Your task to perform on an android device: create a new album in the google photos Image 0: 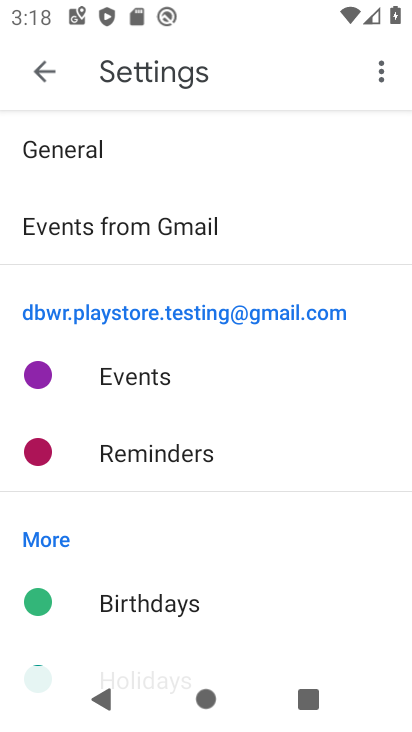
Step 0: press home button
Your task to perform on an android device: create a new album in the google photos Image 1: 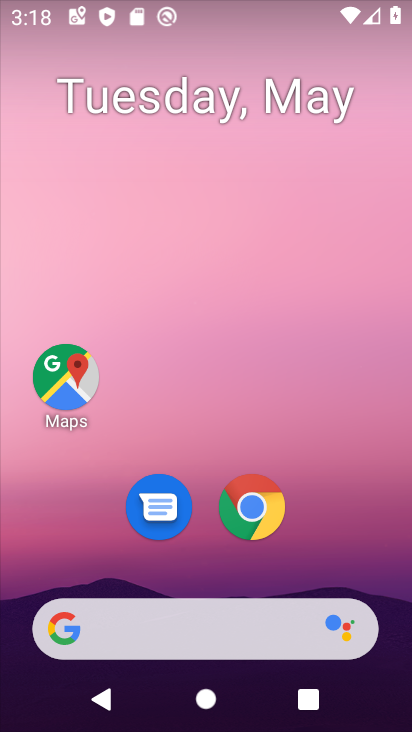
Step 1: drag from (210, 567) to (266, 58)
Your task to perform on an android device: create a new album in the google photos Image 2: 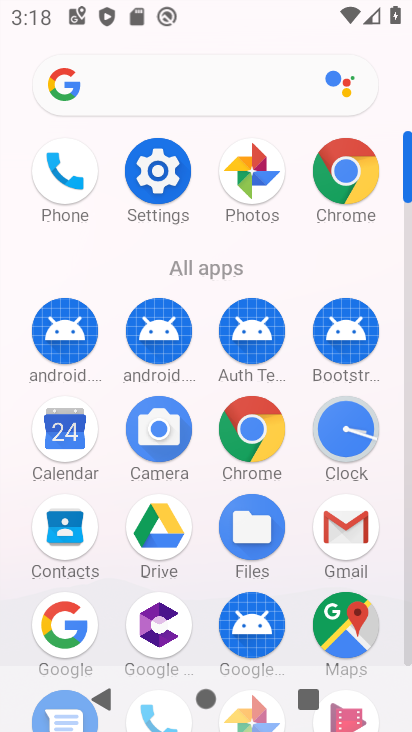
Step 2: click (257, 167)
Your task to perform on an android device: create a new album in the google photos Image 3: 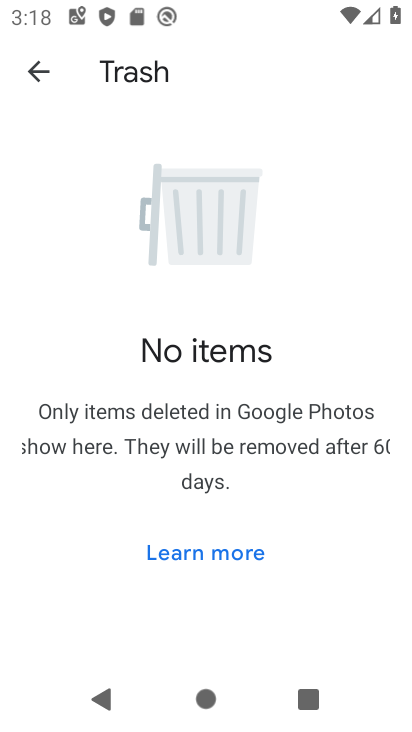
Step 3: click (44, 81)
Your task to perform on an android device: create a new album in the google photos Image 4: 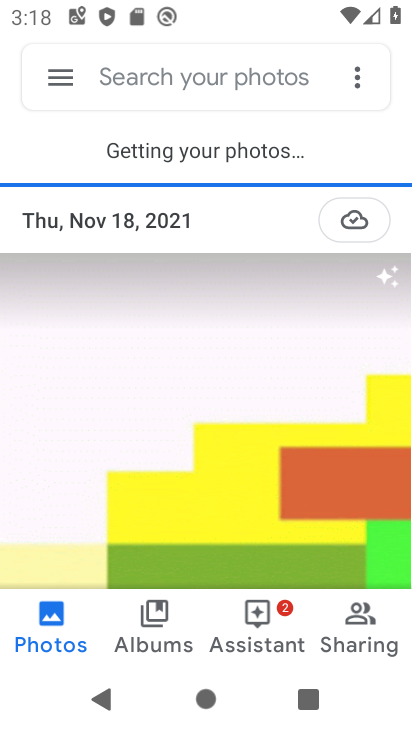
Step 4: click (156, 629)
Your task to perform on an android device: create a new album in the google photos Image 5: 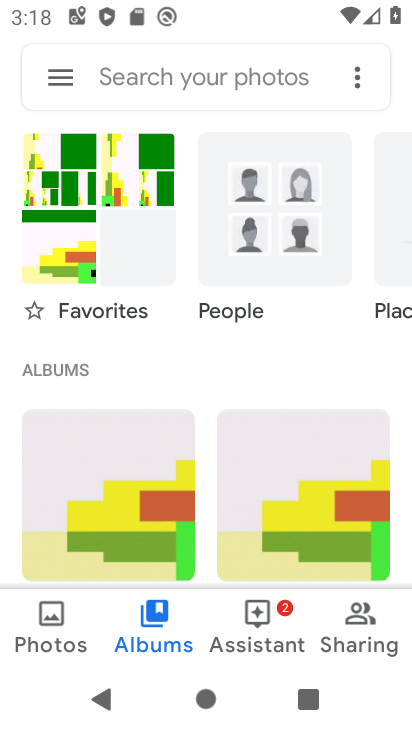
Step 5: click (346, 89)
Your task to perform on an android device: create a new album in the google photos Image 6: 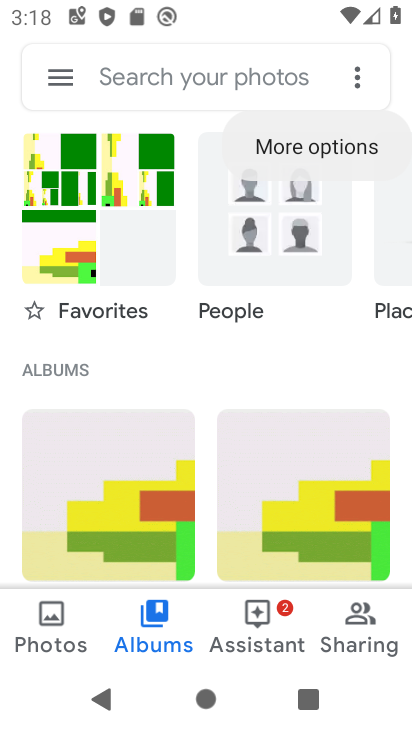
Step 6: click (359, 77)
Your task to perform on an android device: create a new album in the google photos Image 7: 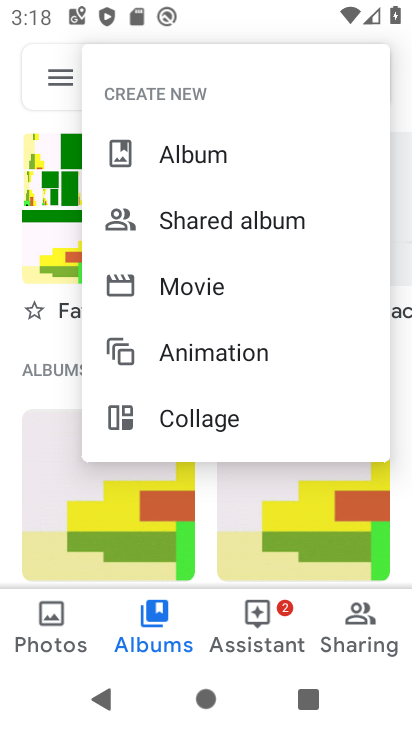
Step 7: click (211, 157)
Your task to perform on an android device: create a new album in the google photos Image 8: 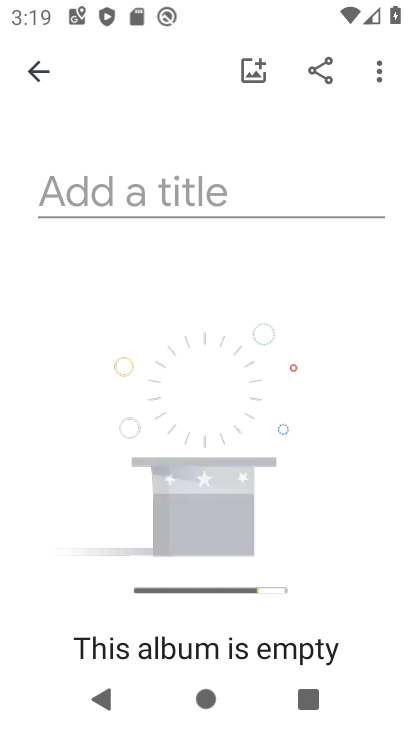
Step 8: click (170, 196)
Your task to perform on an android device: create a new album in the google photos Image 9: 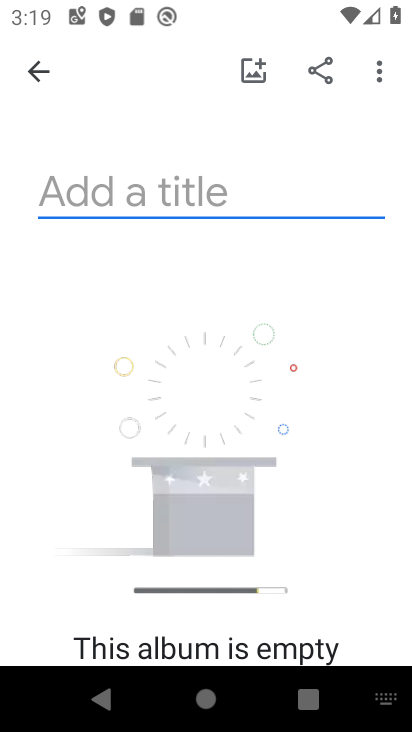
Step 9: type "mklpoijnbhuygvcftrdxzsewaq"
Your task to perform on an android device: create a new album in the google photos Image 10: 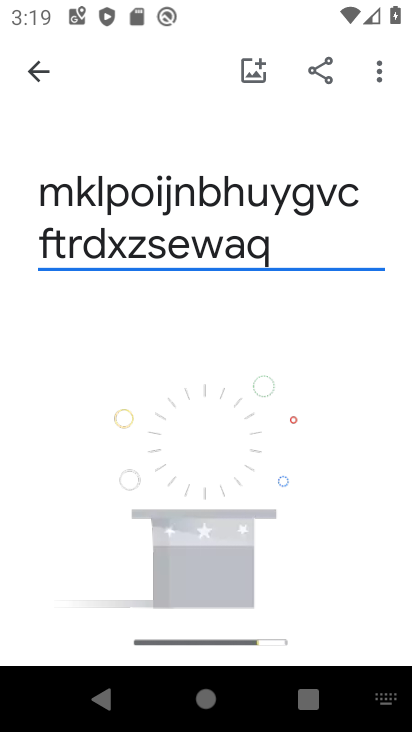
Step 10: click (255, 62)
Your task to perform on an android device: create a new album in the google photos Image 11: 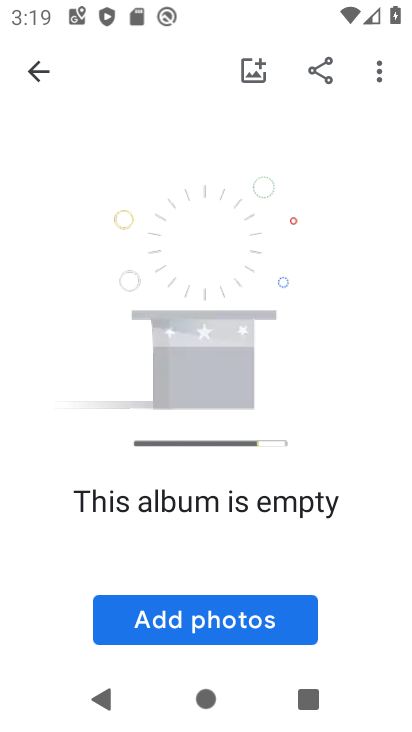
Step 11: click (201, 641)
Your task to perform on an android device: create a new album in the google photos Image 12: 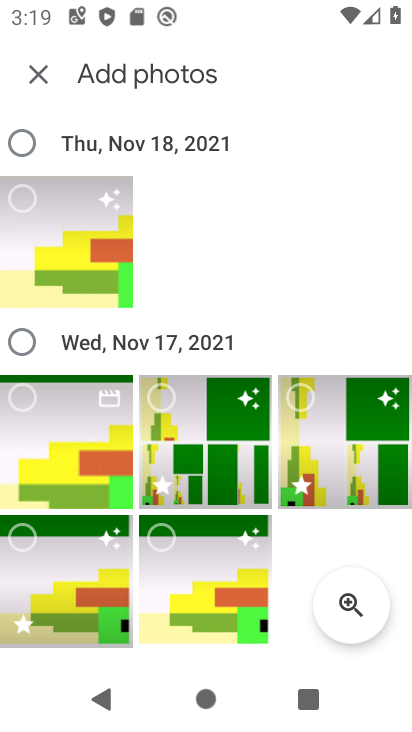
Step 12: click (68, 241)
Your task to perform on an android device: create a new album in the google photos Image 13: 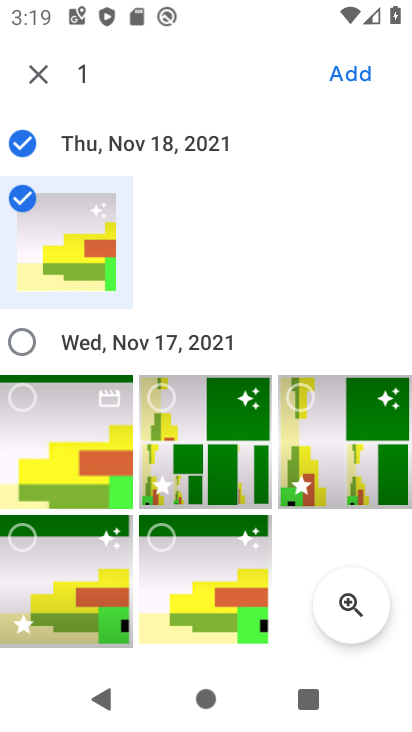
Step 13: click (373, 69)
Your task to perform on an android device: create a new album in the google photos Image 14: 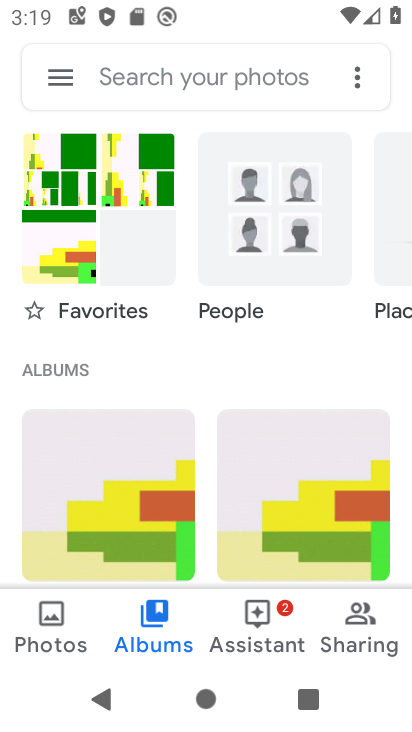
Step 14: task complete